Your task to perform on an android device: snooze an email in the gmail app Image 0: 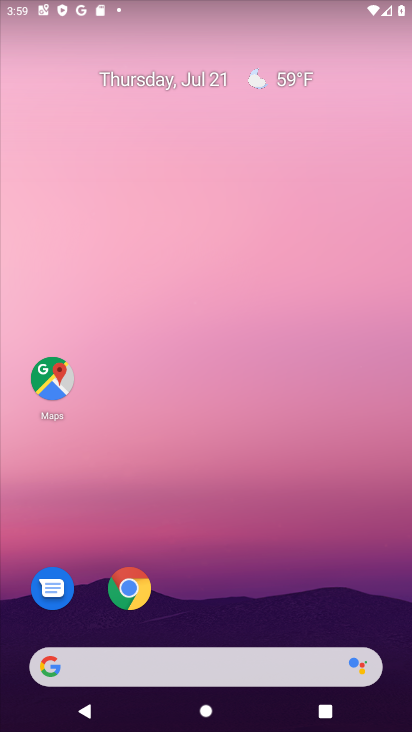
Step 0: drag from (242, 721) to (210, 276)
Your task to perform on an android device: snooze an email in the gmail app Image 1: 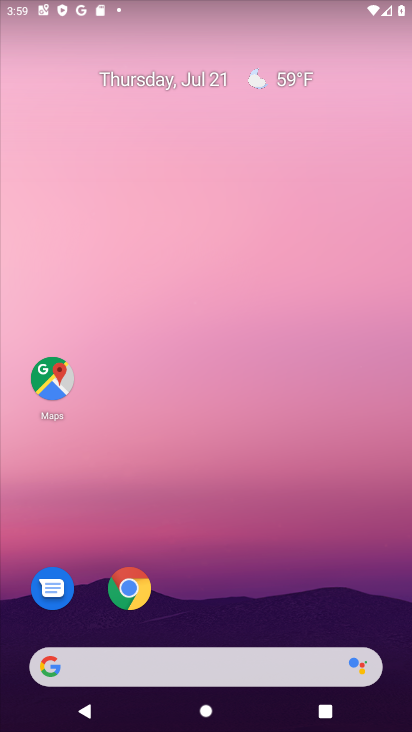
Step 1: drag from (230, 728) to (192, 216)
Your task to perform on an android device: snooze an email in the gmail app Image 2: 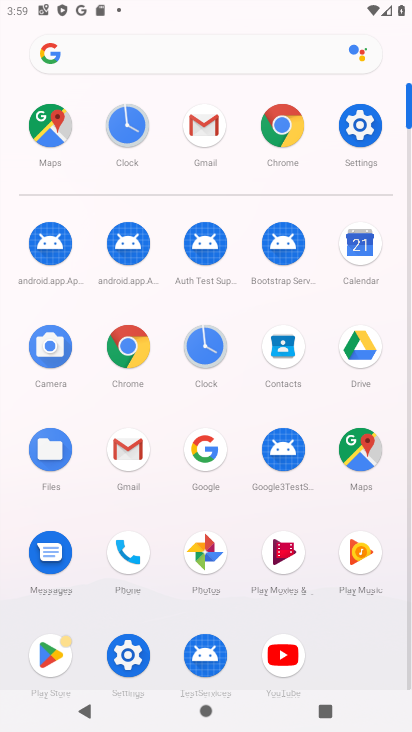
Step 2: click (127, 446)
Your task to perform on an android device: snooze an email in the gmail app Image 3: 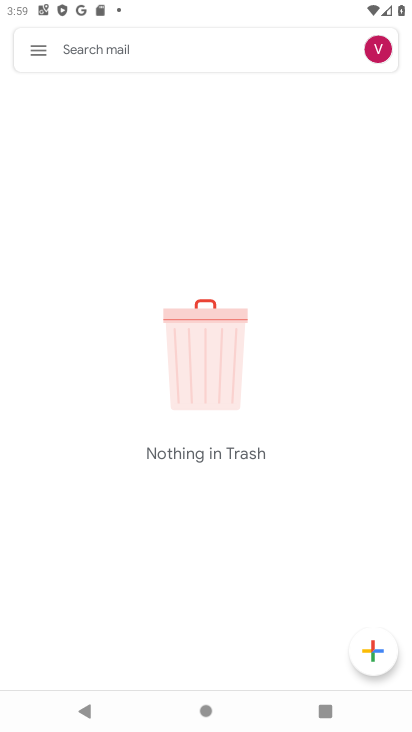
Step 3: click (29, 51)
Your task to perform on an android device: snooze an email in the gmail app Image 4: 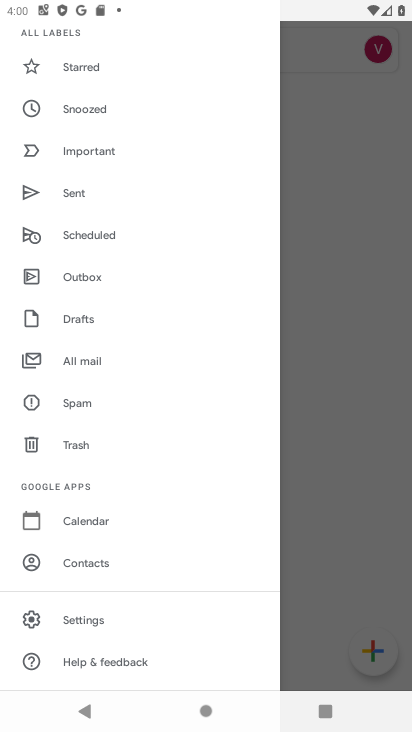
Step 4: drag from (93, 125) to (89, 442)
Your task to perform on an android device: snooze an email in the gmail app Image 5: 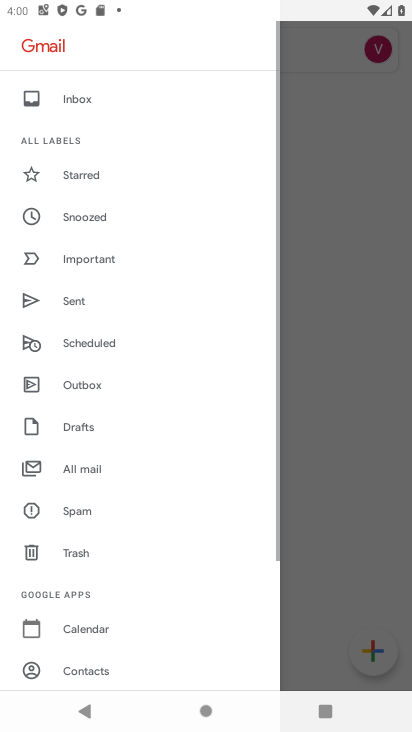
Step 5: click (78, 100)
Your task to perform on an android device: snooze an email in the gmail app Image 6: 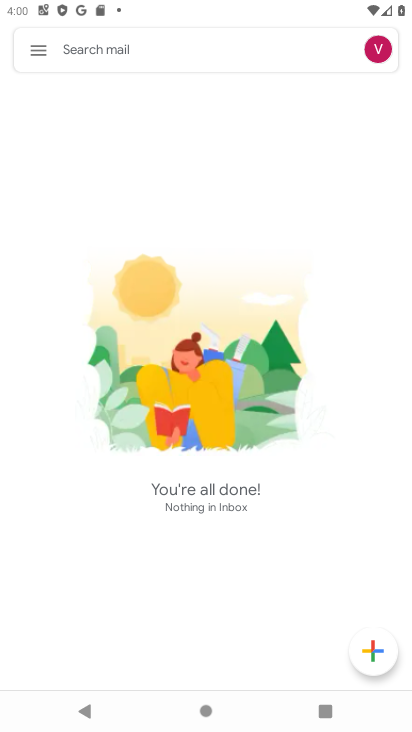
Step 6: task complete